Your task to perform on an android device: Go to location settings Image 0: 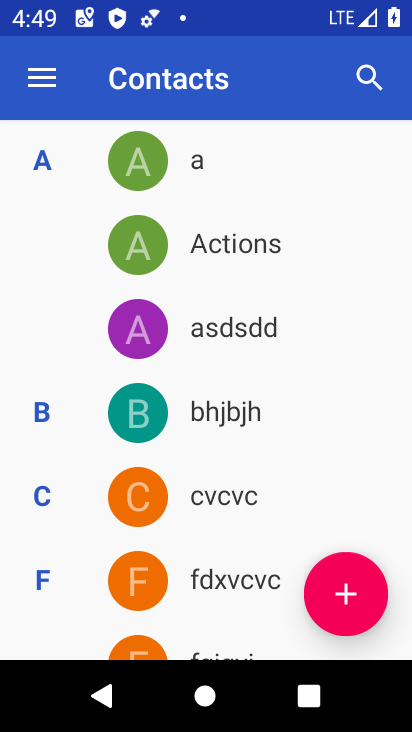
Step 0: press home button
Your task to perform on an android device: Go to location settings Image 1: 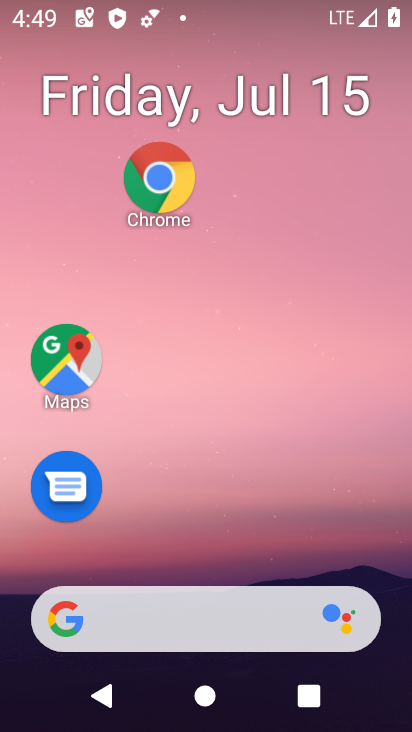
Step 1: drag from (195, 242) to (195, 121)
Your task to perform on an android device: Go to location settings Image 2: 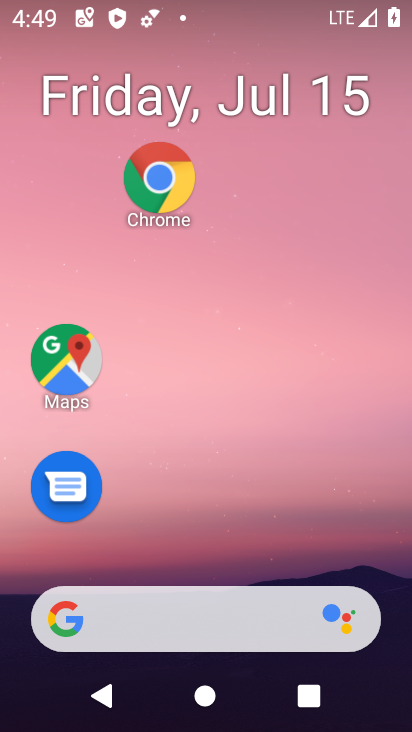
Step 2: drag from (181, 473) to (169, 13)
Your task to perform on an android device: Go to location settings Image 3: 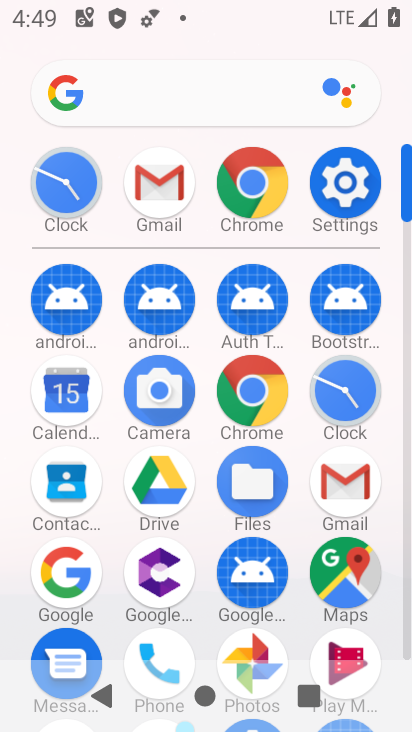
Step 3: click (342, 177)
Your task to perform on an android device: Go to location settings Image 4: 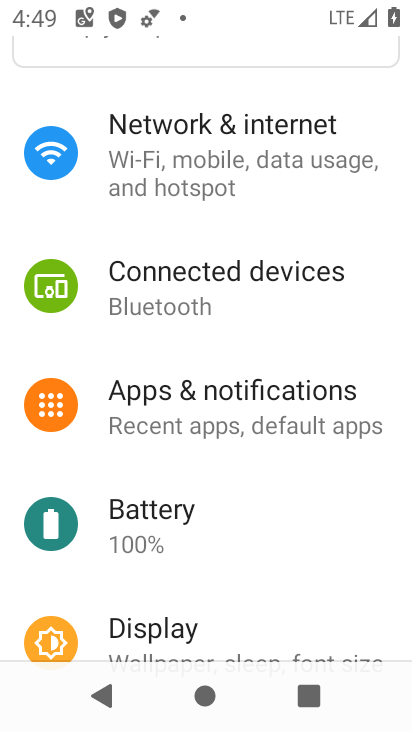
Step 4: drag from (224, 554) to (178, 232)
Your task to perform on an android device: Go to location settings Image 5: 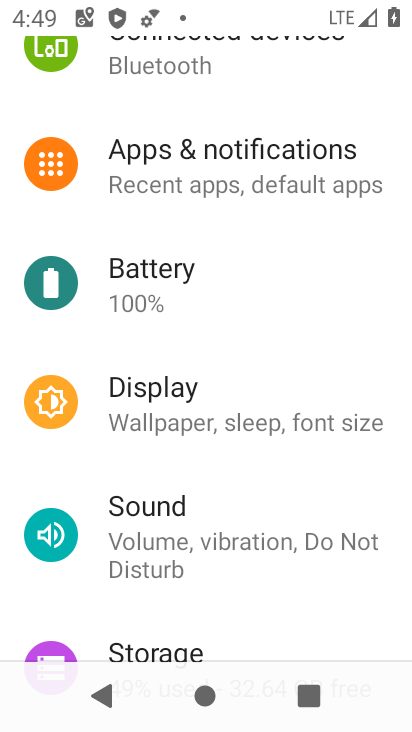
Step 5: drag from (200, 573) to (198, 310)
Your task to perform on an android device: Go to location settings Image 6: 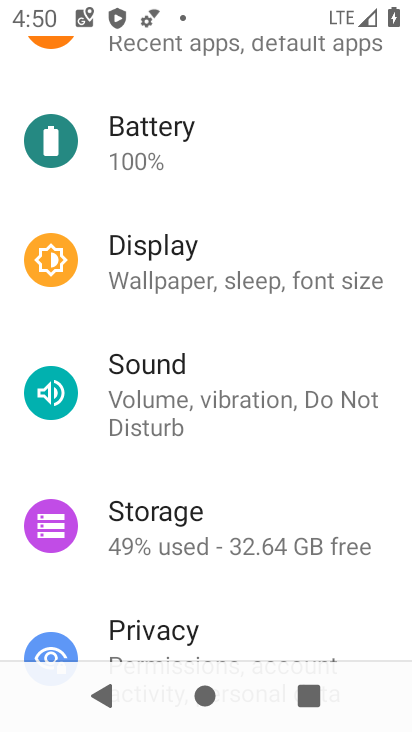
Step 6: drag from (203, 236) to (210, 484)
Your task to perform on an android device: Go to location settings Image 7: 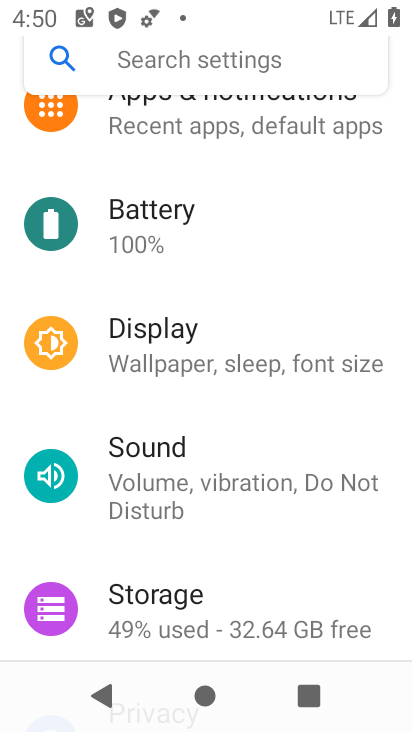
Step 7: drag from (278, 461) to (266, 567)
Your task to perform on an android device: Go to location settings Image 8: 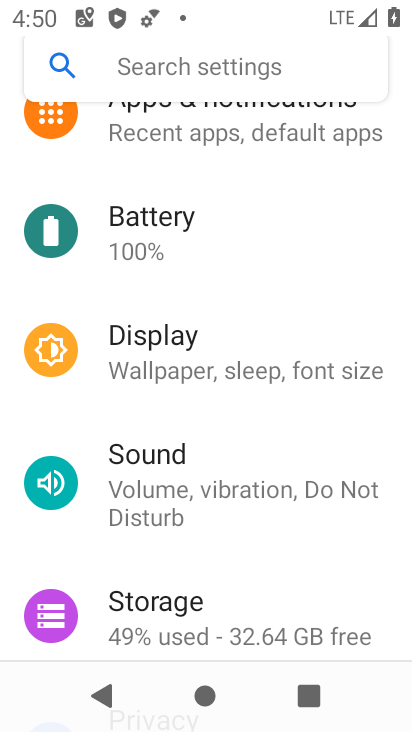
Step 8: drag from (258, 413) to (252, 479)
Your task to perform on an android device: Go to location settings Image 9: 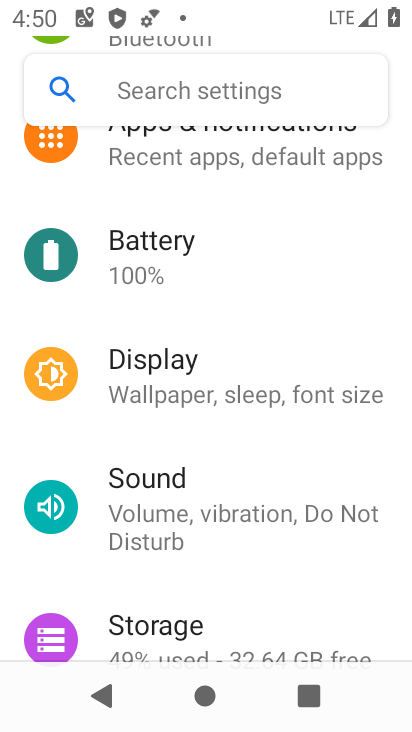
Step 9: drag from (241, 326) to (226, 423)
Your task to perform on an android device: Go to location settings Image 10: 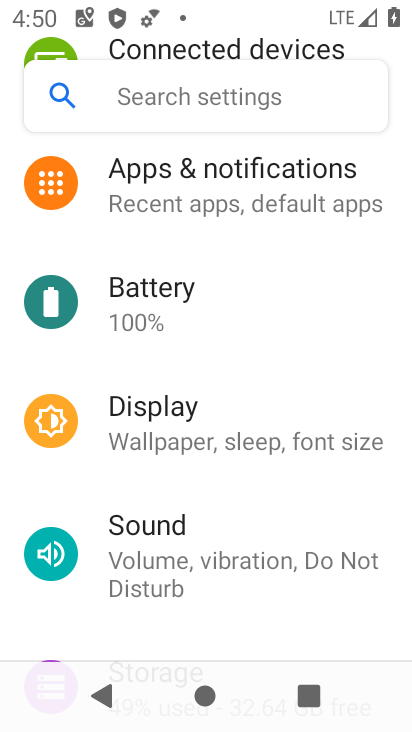
Step 10: drag from (214, 484) to (191, 599)
Your task to perform on an android device: Go to location settings Image 11: 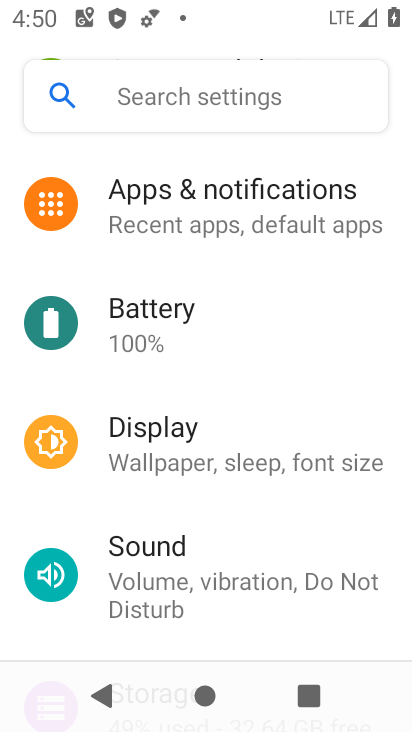
Step 11: drag from (191, 559) to (215, 301)
Your task to perform on an android device: Go to location settings Image 12: 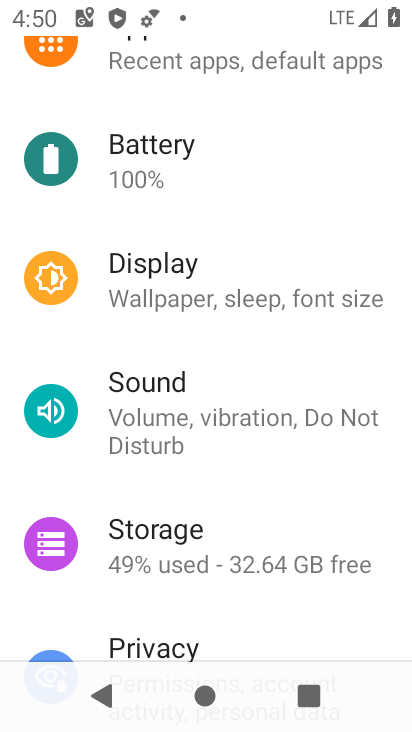
Step 12: drag from (240, 552) to (253, 234)
Your task to perform on an android device: Go to location settings Image 13: 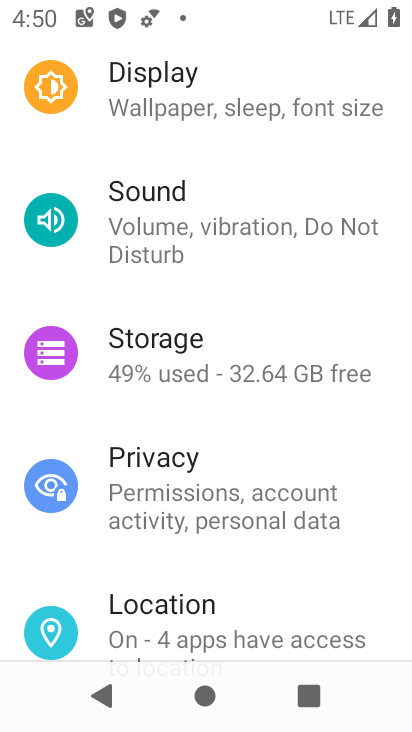
Step 13: click (150, 619)
Your task to perform on an android device: Go to location settings Image 14: 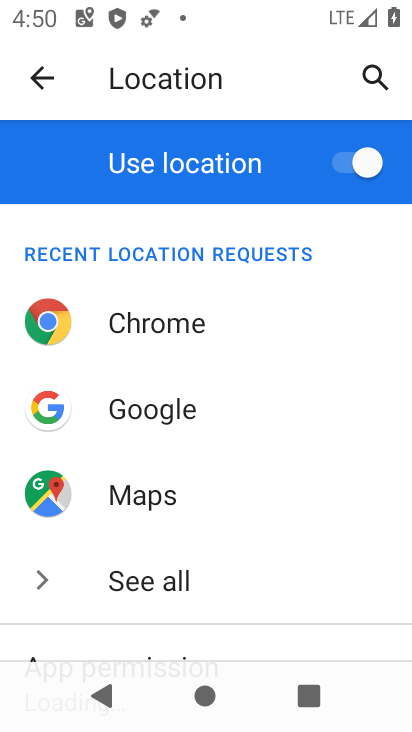
Step 14: task complete